Your task to perform on an android device: change your default location settings in chrome Image 0: 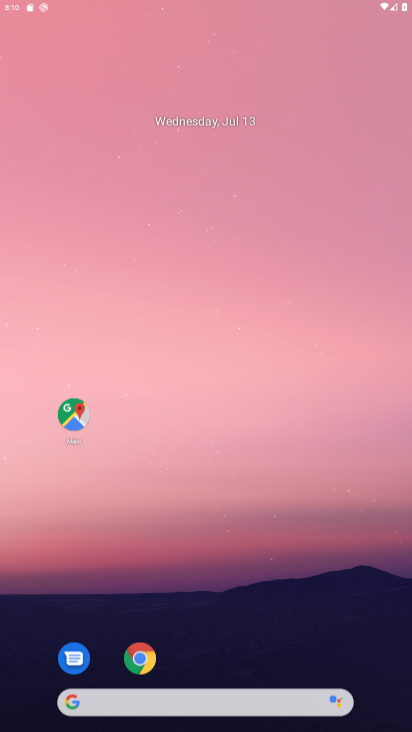
Step 0: click (183, 62)
Your task to perform on an android device: change your default location settings in chrome Image 1: 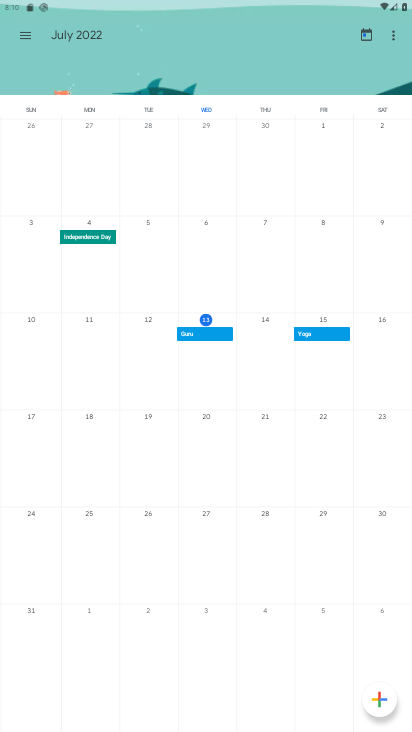
Step 1: press home button
Your task to perform on an android device: change your default location settings in chrome Image 2: 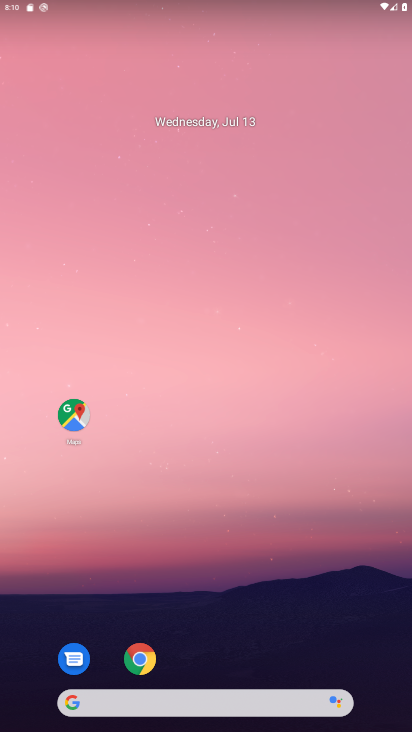
Step 2: click (141, 656)
Your task to perform on an android device: change your default location settings in chrome Image 3: 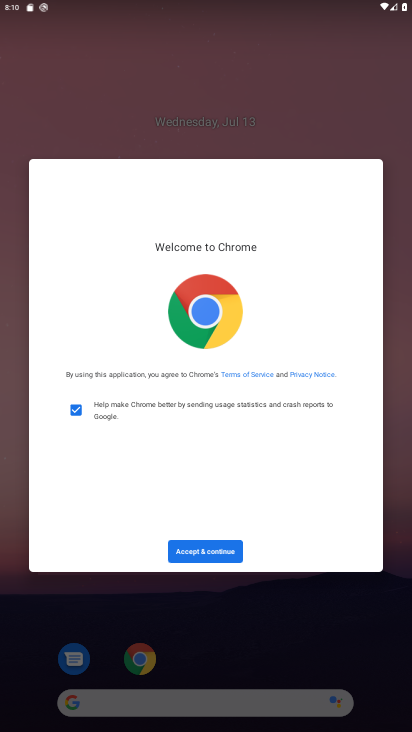
Step 3: click (205, 555)
Your task to perform on an android device: change your default location settings in chrome Image 4: 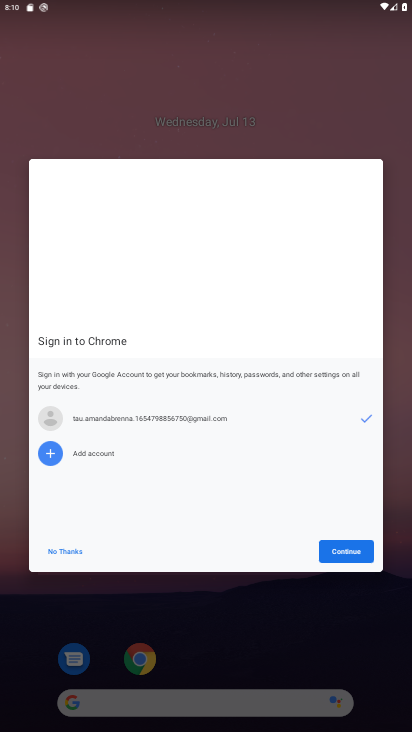
Step 4: click (363, 553)
Your task to perform on an android device: change your default location settings in chrome Image 5: 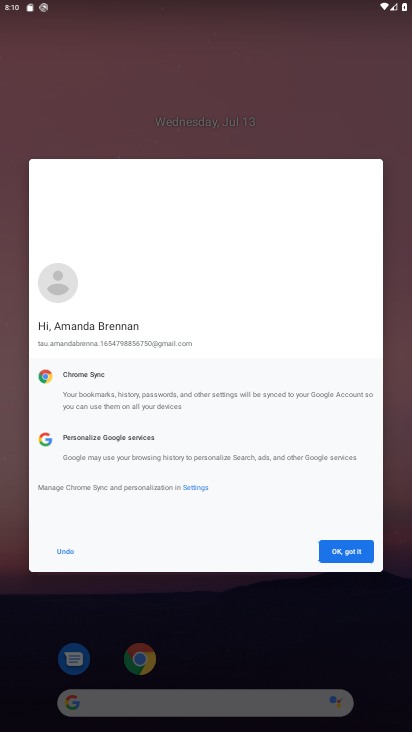
Step 5: click (342, 554)
Your task to perform on an android device: change your default location settings in chrome Image 6: 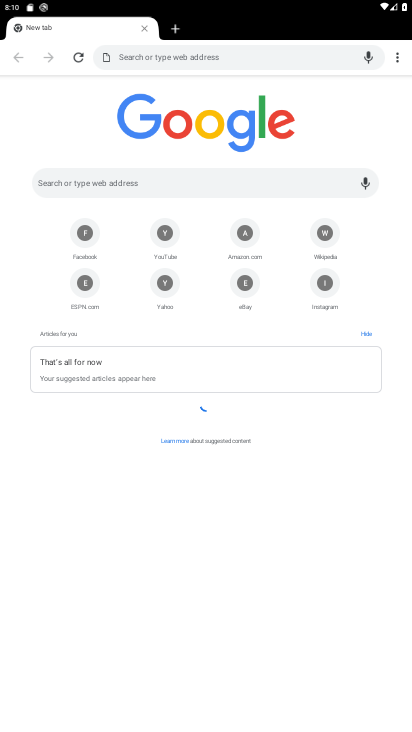
Step 6: click (394, 52)
Your task to perform on an android device: change your default location settings in chrome Image 7: 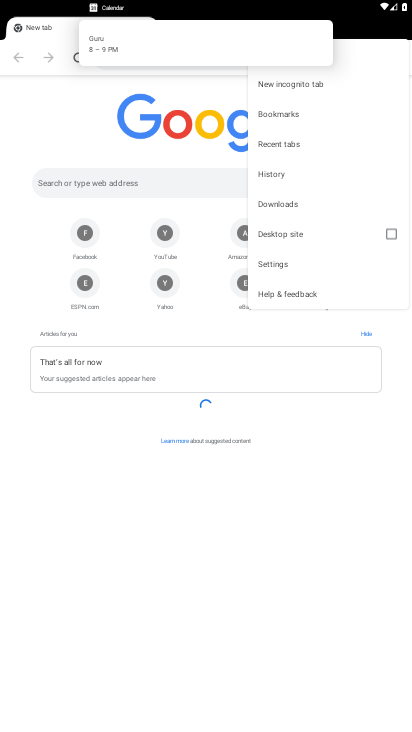
Step 7: click (267, 258)
Your task to perform on an android device: change your default location settings in chrome Image 8: 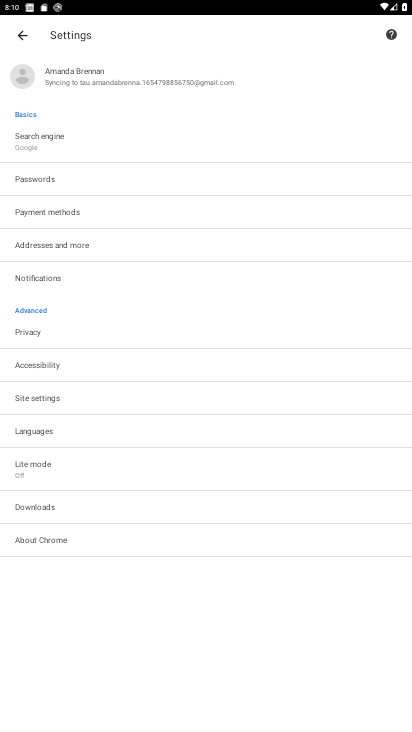
Step 8: click (42, 396)
Your task to perform on an android device: change your default location settings in chrome Image 9: 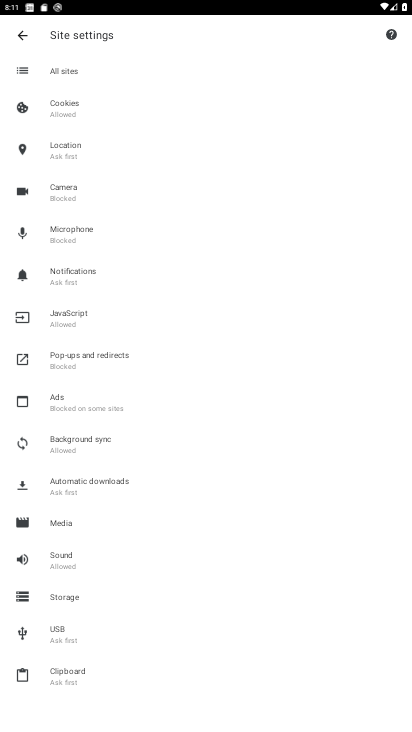
Step 9: click (67, 148)
Your task to perform on an android device: change your default location settings in chrome Image 10: 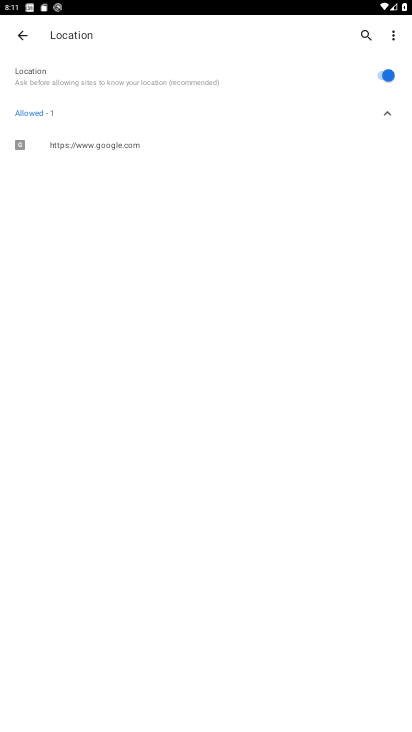
Step 10: click (392, 72)
Your task to perform on an android device: change your default location settings in chrome Image 11: 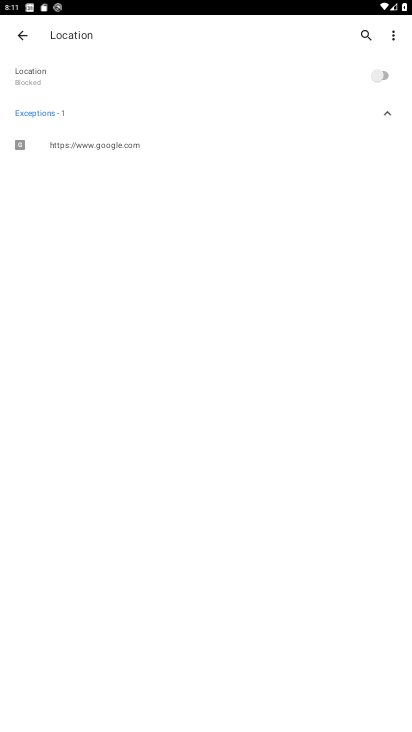
Step 11: task complete